Your task to perform on an android device: delete browsing data in the chrome app Image 0: 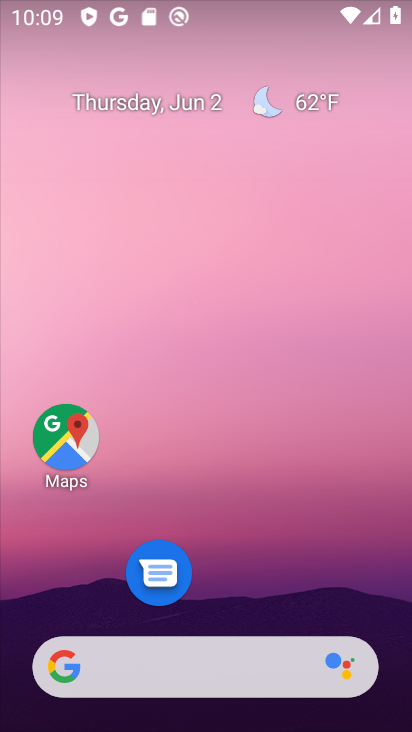
Step 0: drag from (219, 616) to (162, 78)
Your task to perform on an android device: delete browsing data in the chrome app Image 1: 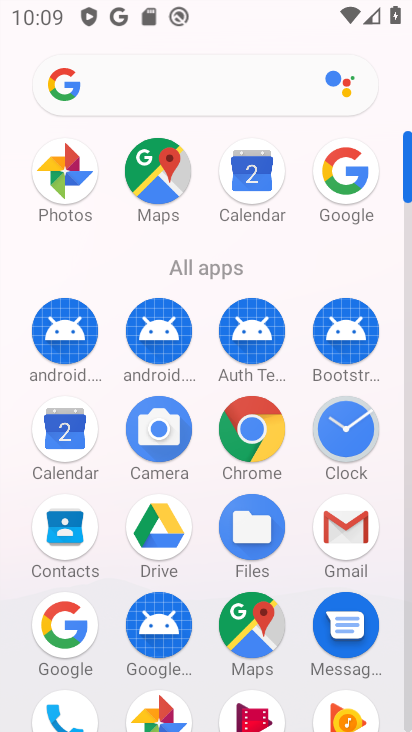
Step 1: click (259, 432)
Your task to perform on an android device: delete browsing data in the chrome app Image 2: 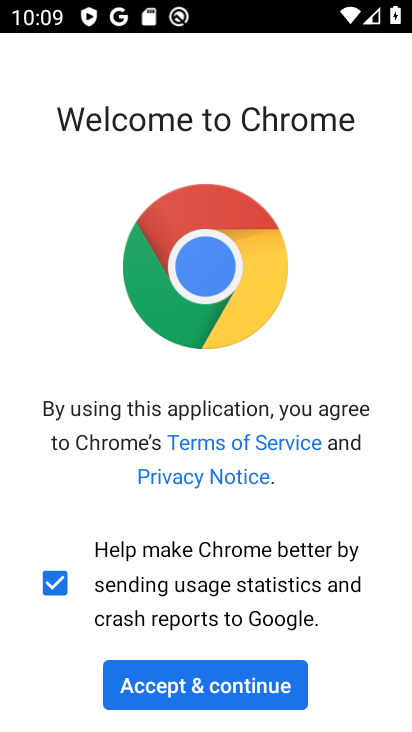
Step 2: click (265, 674)
Your task to perform on an android device: delete browsing data in the chrome app Image 3: 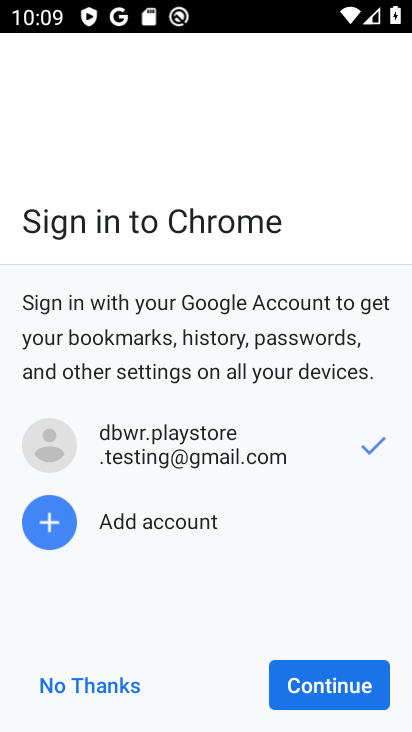
Step 3: click (305, 688)
Your task to perform on an android device: delete browsing data in the chrome app Image 4: 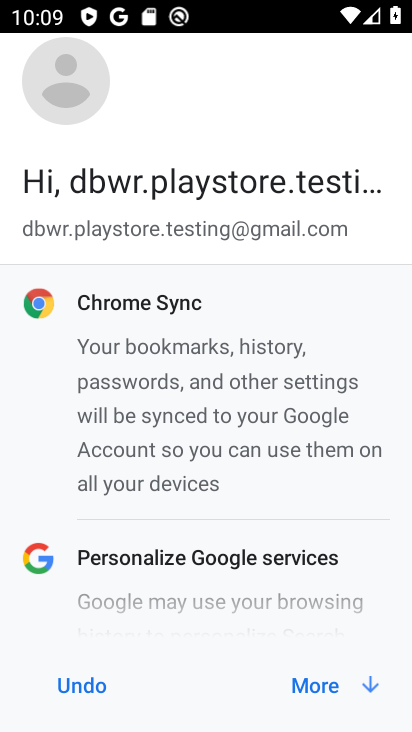
Step 4: click (321, 689)
Your task to perform on an android device: delete browsing data in the chrome app Image 5: 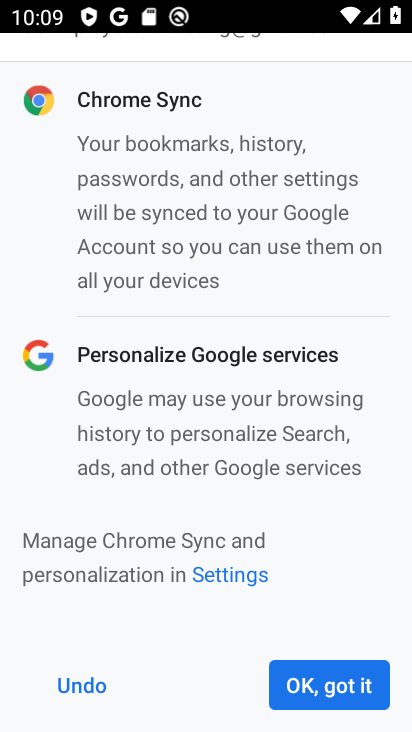
Step 5: click (326, 686)
Your task to perform on an android device: delete browsing data in the chrome app Image 6: 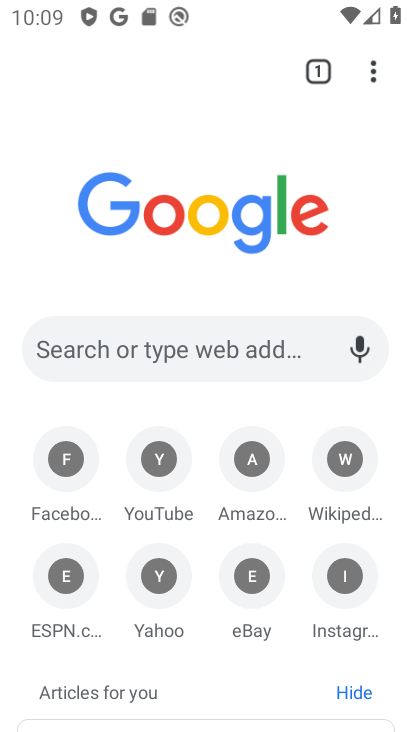
Step 6: task complete